Your task to perform on an android device: turn off notifications in google photos Image 0: 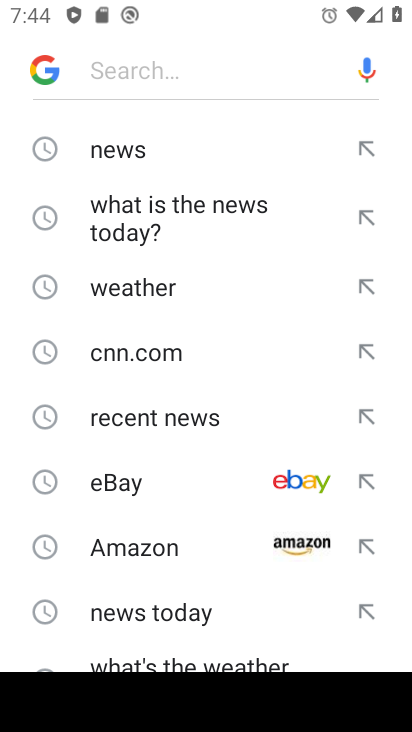
Step 0: press home button
Your task to perform on an android device: turn off notifications in google photos Image 1: 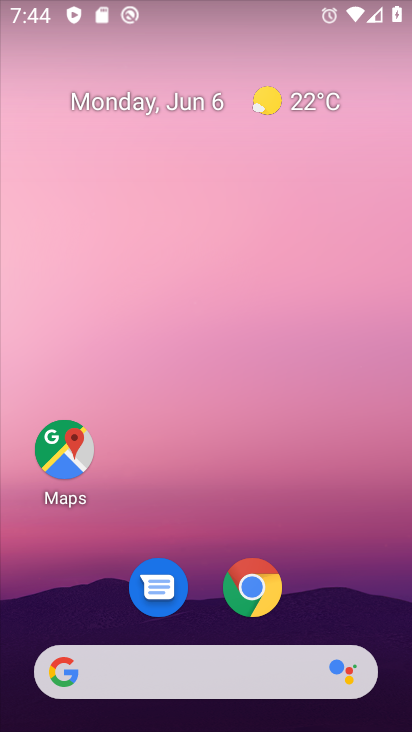
Step 1: drag from (322, 577) to (313, 102)
Your task to perform on an android device: turn off notifications in google photos Image 2: 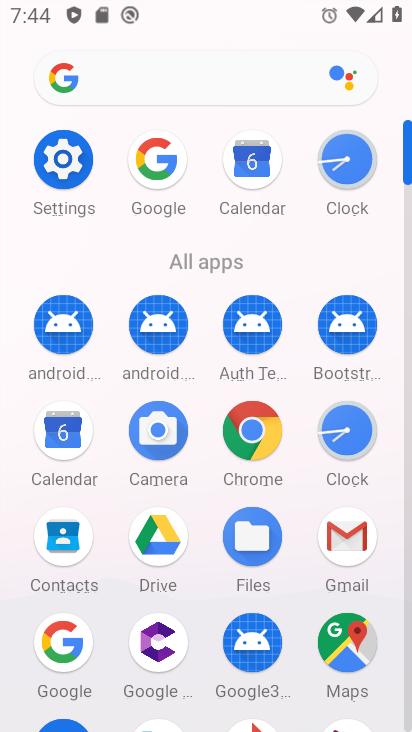
Step 2: drag from (207, 643) to (257, 249)
Your task to perform on an android device: turn off notifications in google photos Image 3: 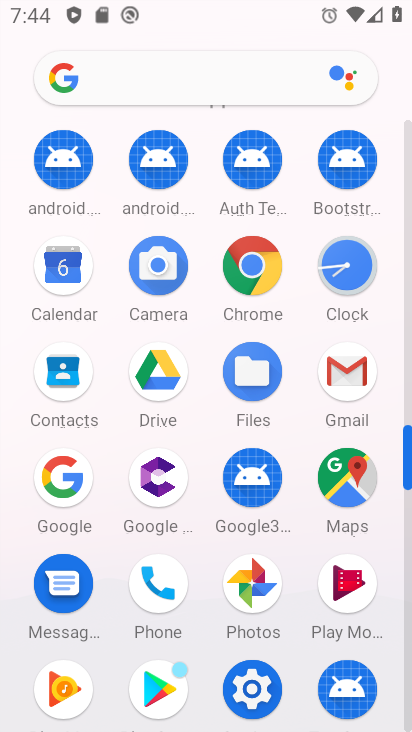
Step 3: click (250, 576)
Your task to perform on an android device: turn off notifications in google photos Image 4: 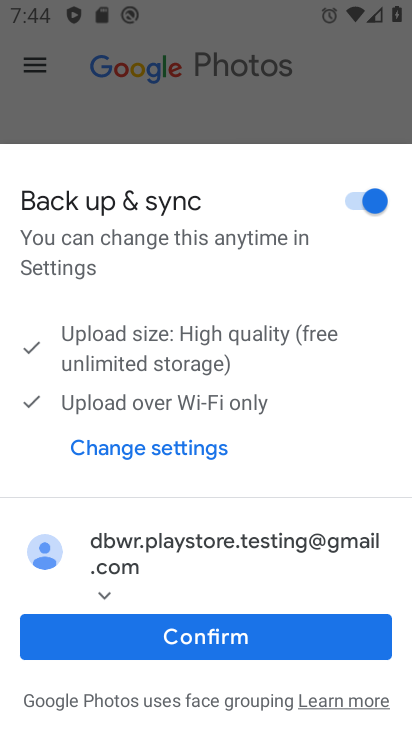
Step 4: drag from (31, 62) to (317, 665)
Your task to perform on an android device: turn off notifications in google photos Image 5: 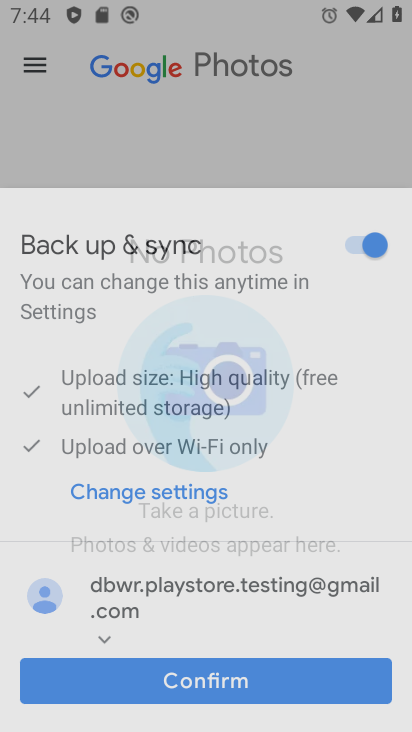
Step 5: click (219, 641)
Your task to perform on an android device: turn off notifications in google photos Image 6: 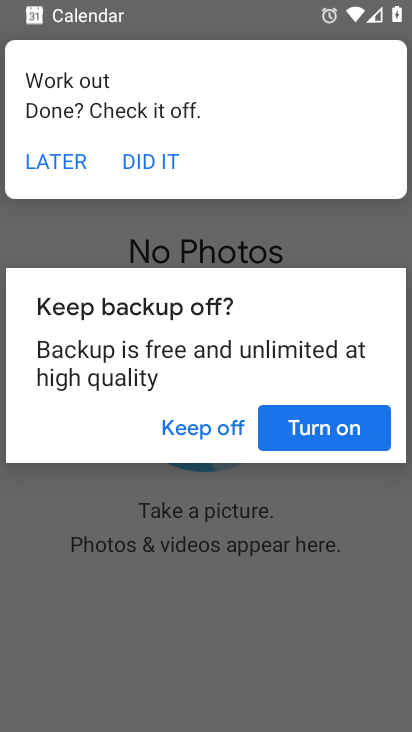
Step 6: click (297, 430)
Your task to perform on an android device: turn off notifications in google photos Image 7: 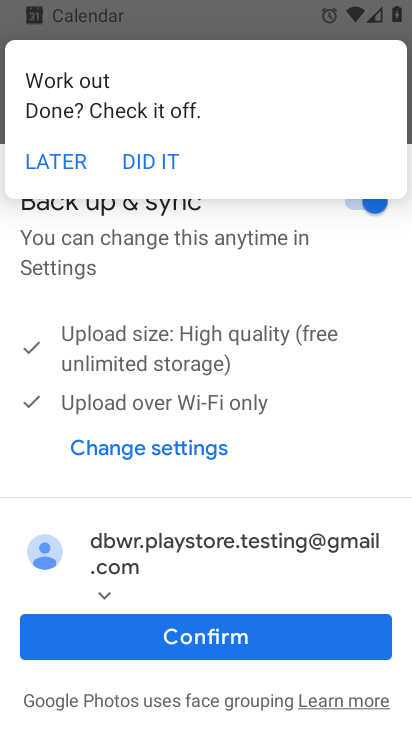
Step 7: click (224, 645)
Your task to perform on an android device: turn off notifications in google photos Image 8: 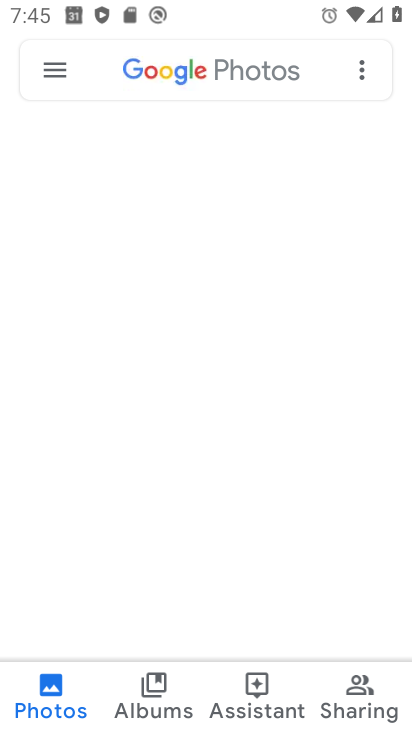
Step 8: click (81, 158)
Your task to perform on an android device: turn off notifications in google photos Image 9: 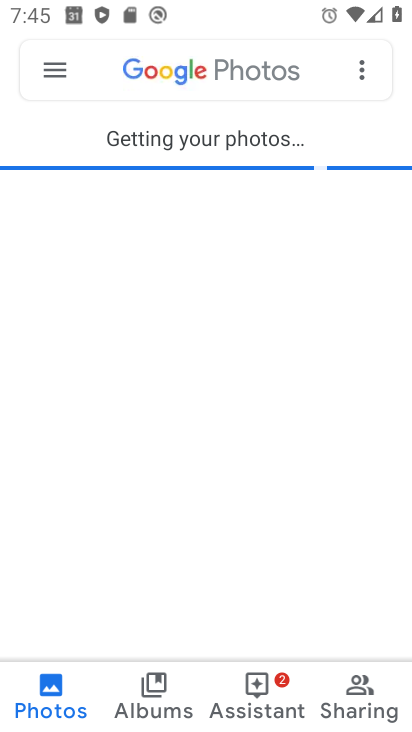
Step 9: click (53, 67)
Your task to perform on an android device: turn off notifications in google photos Image 10: 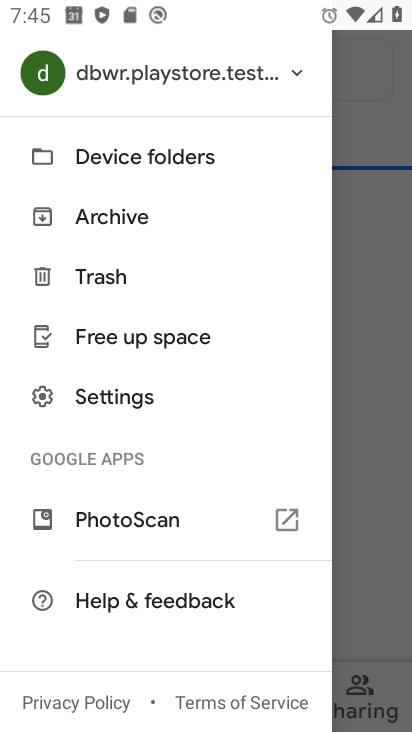
Step 10: click (153, 415)
Your task to perform on an android device: turn off notifications in google photos Image 11: 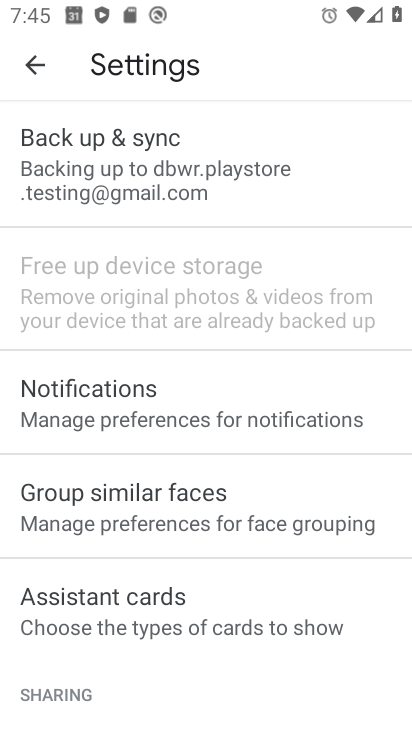
Step 11: click (148, 428)
Your task to perform on an android device: turn off notifications in google photos Image 12: 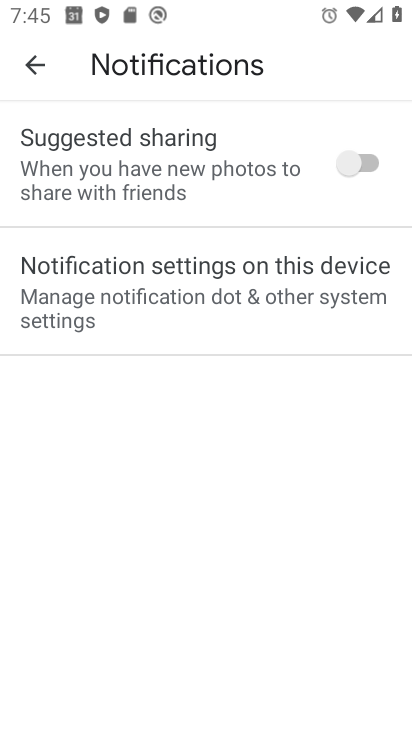
Step 12: drag from (279, 203) to (316, 507)
Your task to perform on an android device: turn off notifications in google photos Image 13: 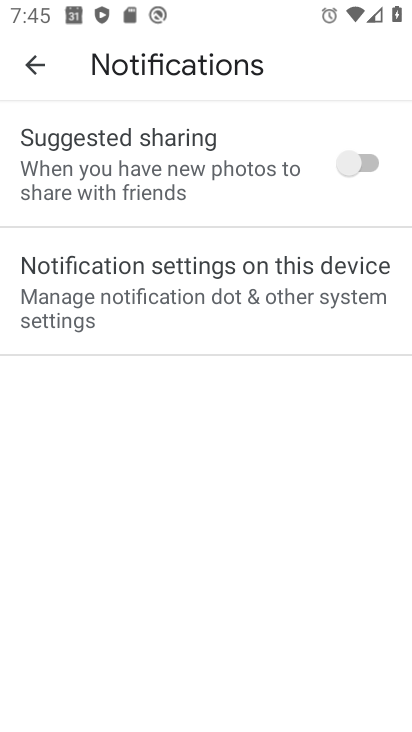
Step 13: click (246, 326)
Your task to perform on an android device: turn off notifications in google photos Image 14: 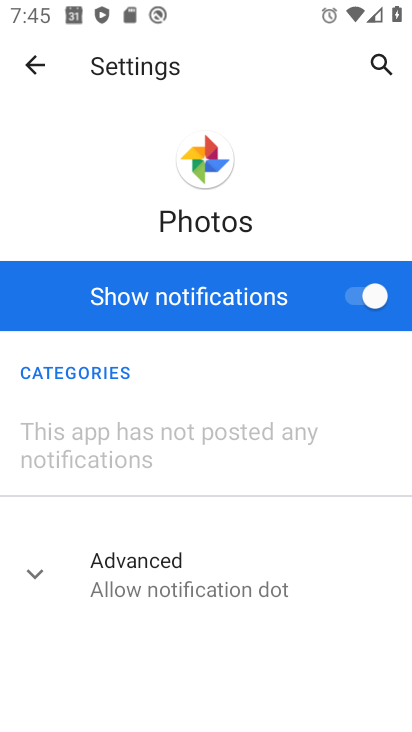
Step 14: click (362, 286)
Your task to perform on an android device: turn off notifications in google photos Image 15: 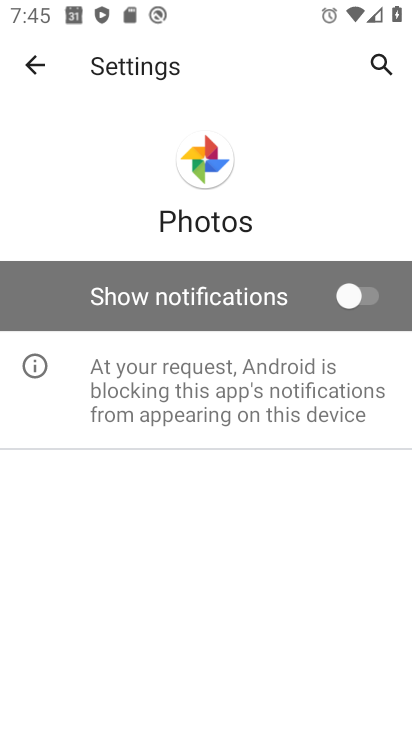
Step 15: task complete